Your task to perform on an android device: Show the shopping cart on amazon.com. Search for razer thresher on amazon.com, select the first entry, and add it to the cart. Image 0: 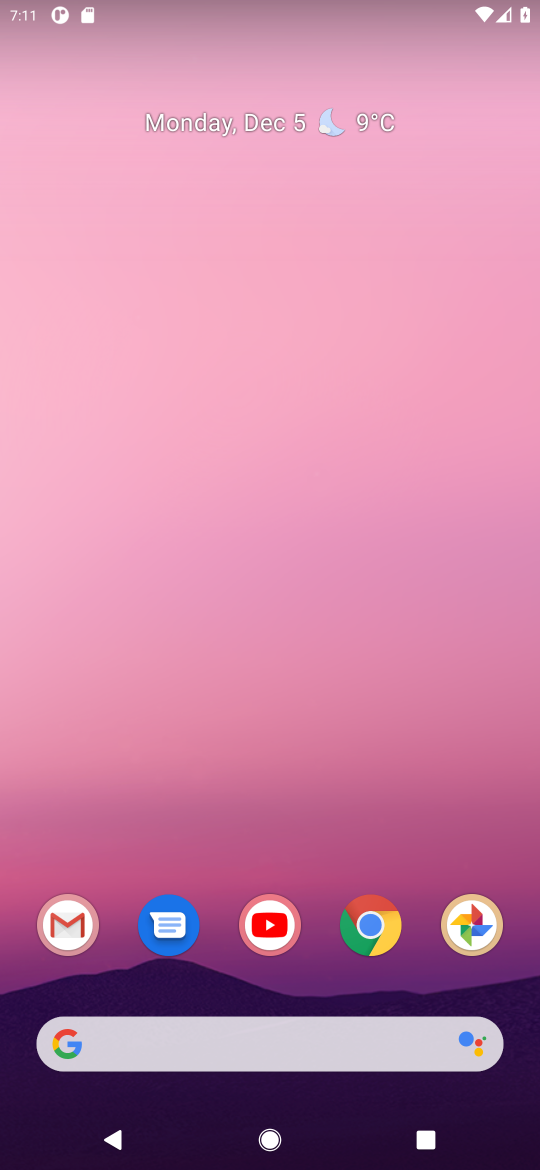
Step 0: click (366, 933)
Your task to perform on an android device: Show the shopping cart on amazon.com. Search for razer thresher on amazon.com, select the first entry, and add it to the cart. Image 1: 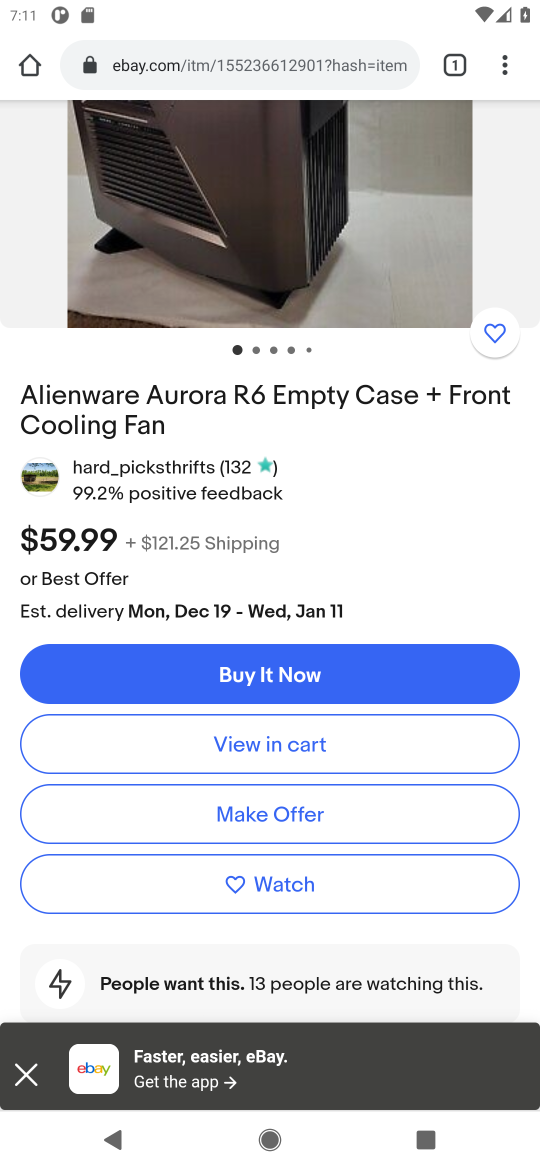
Step 1: click (229, 68)
Your task to perform on an android device: Show the shopping cart on amazon.com. Search for razer thresher on amazon.com, select the first entry, and add it to the cart. Image 2: 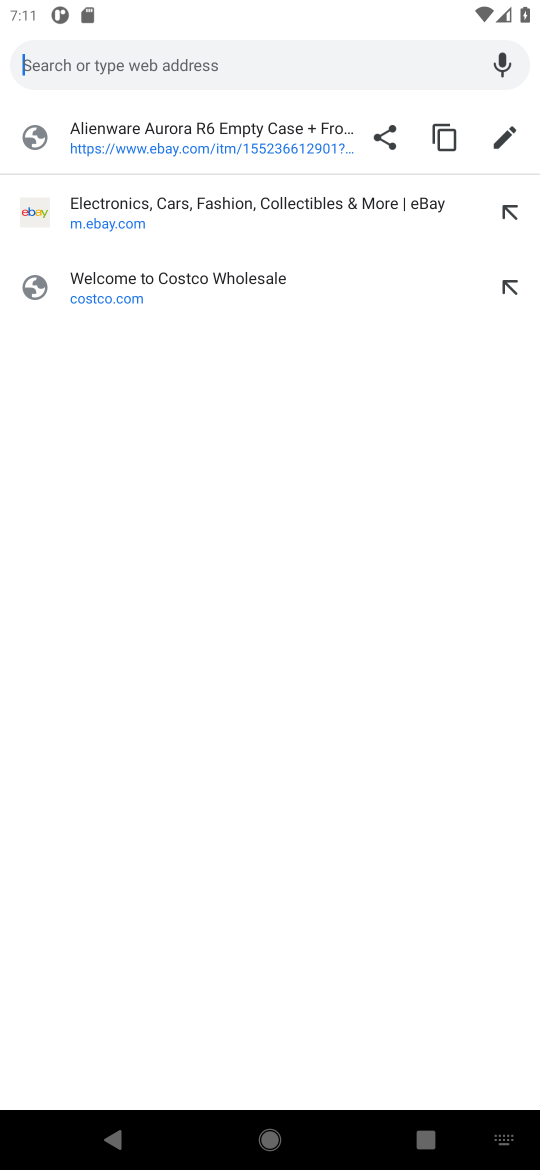
Step 2: type "amazon.com"
Your task to perform on an android device: Show the shopping cart on amazon.com. Search for razer thresher on amazon.com, select the first entry, and add it to the cart. Image 3: 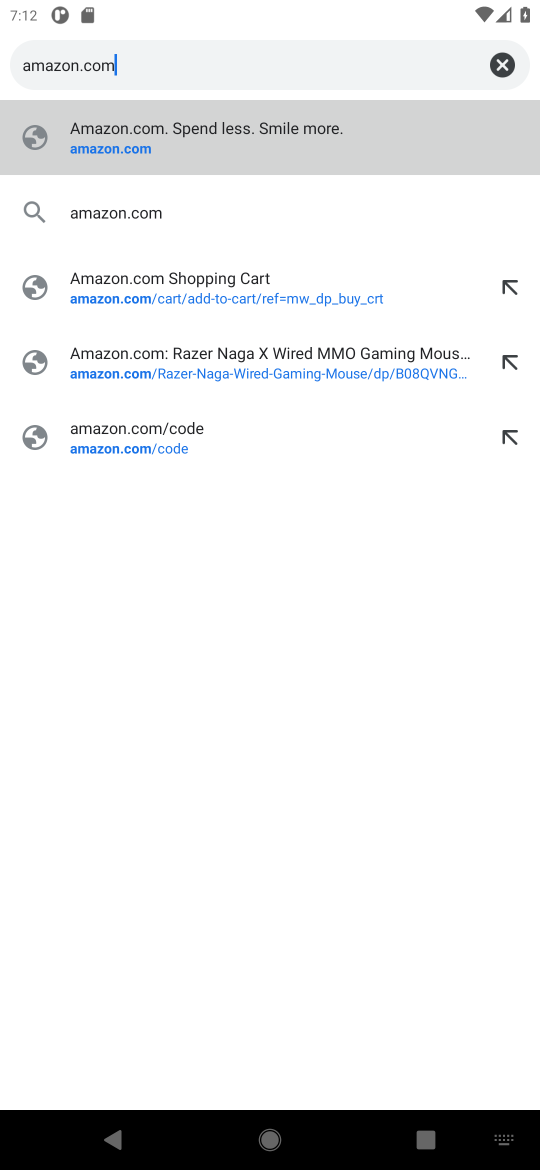
Step 3: click (74, 152)
Your task to perform on an android device: Show the shopping cart on amazon.com. Search for razer thresher on amazon.com, select the first entry, and add it to the cart. Image 4: 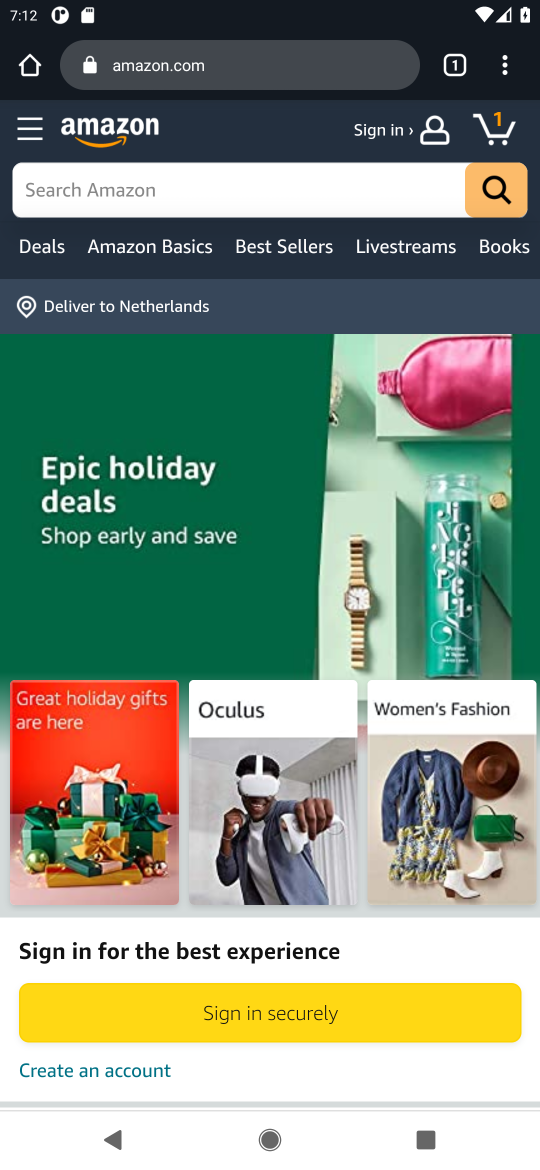
Step 4: click (496, 133)
Your task to perform on an android device: Show the shopping cart on amazon.com. Search for razer thresher on amazon.com, select the first entry, and add it to the cart. Image 5: 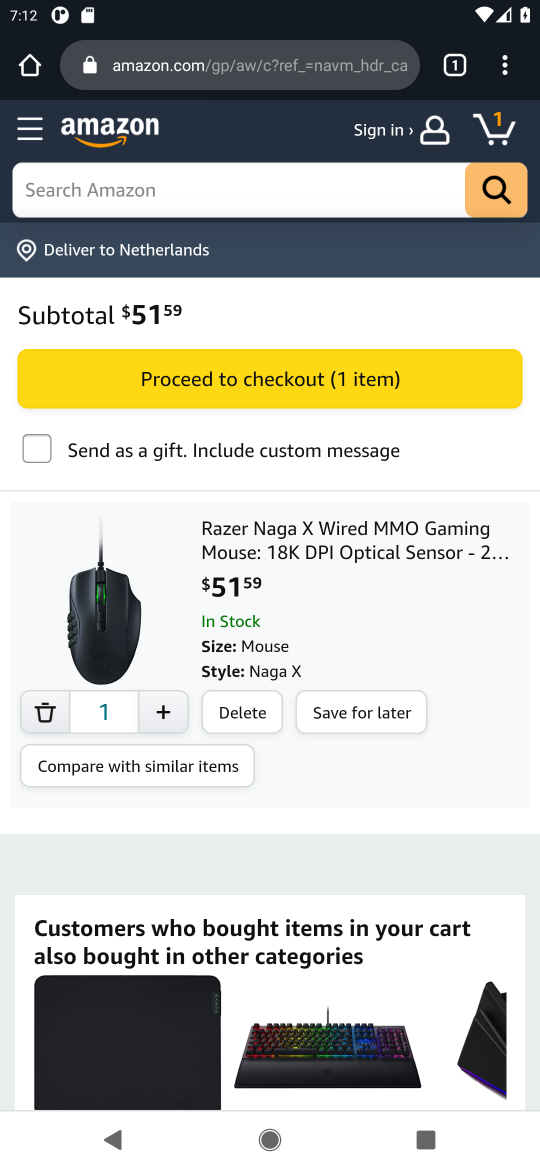
Step 5: click (73, 185)
Your task to perform on an android device: Show the shopping cart on amazon.com. Search for razer thresher on amazon.com, select the first entry, and add it to the cart. Image 6: 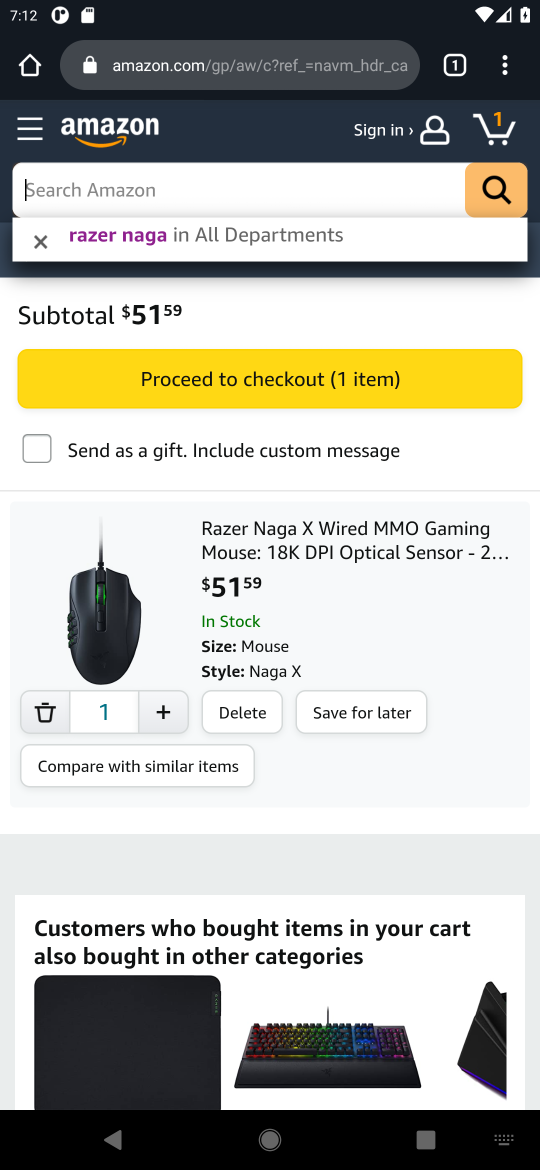
Step 6: type "razer thresher"
Your task to perform on an android device: Show the shopping cart on amazon.com. Search for razer thresher on amazon.com, select the first entry, and add it to the cart. Image 7: 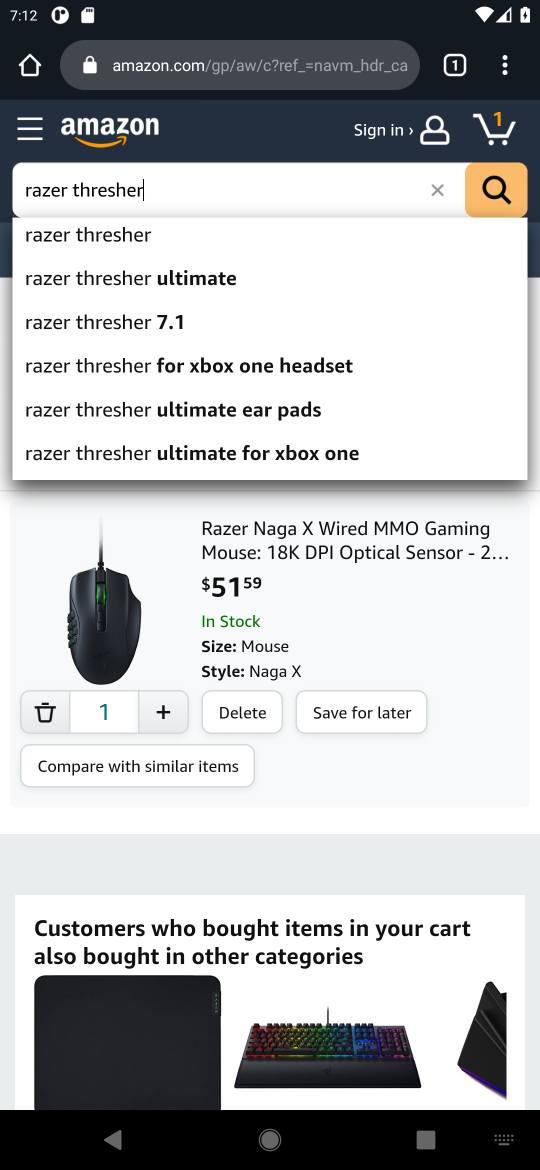
Step 7: click (69, 242)
Your task to perform on an android device: Show the shopping cart on amazon.com. Search for razer thresher on amazon.com, select the first entry, and add it to the cart. Image 8: 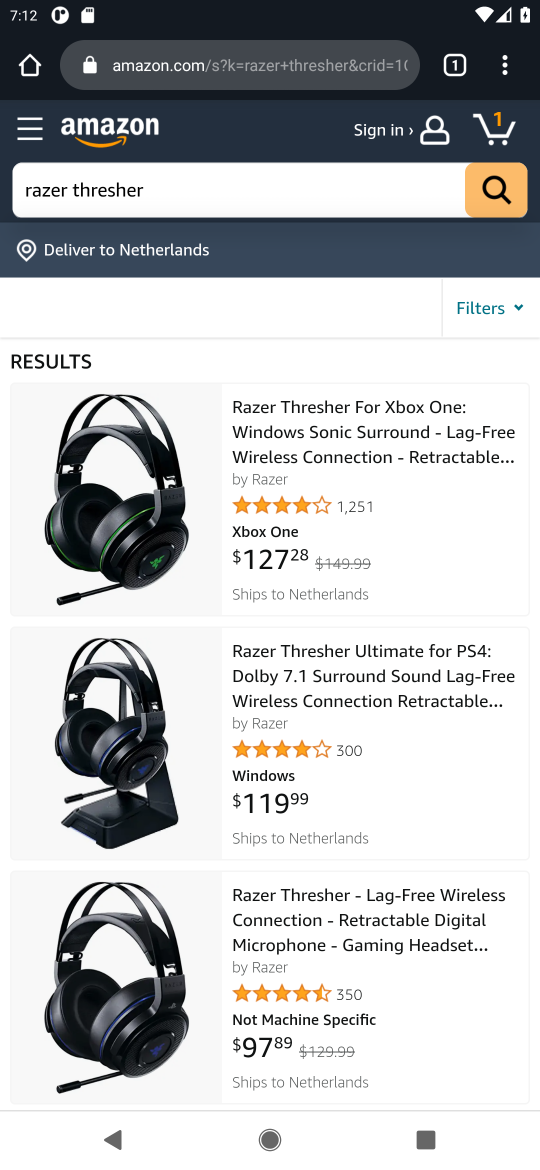
Step 8: click (317, 457)
Your task to perform on an android device: Show the shopping cart on amazon.com. Search for razer thresher on amazon.com, select the first entry, and add it to the cart. Image 9: 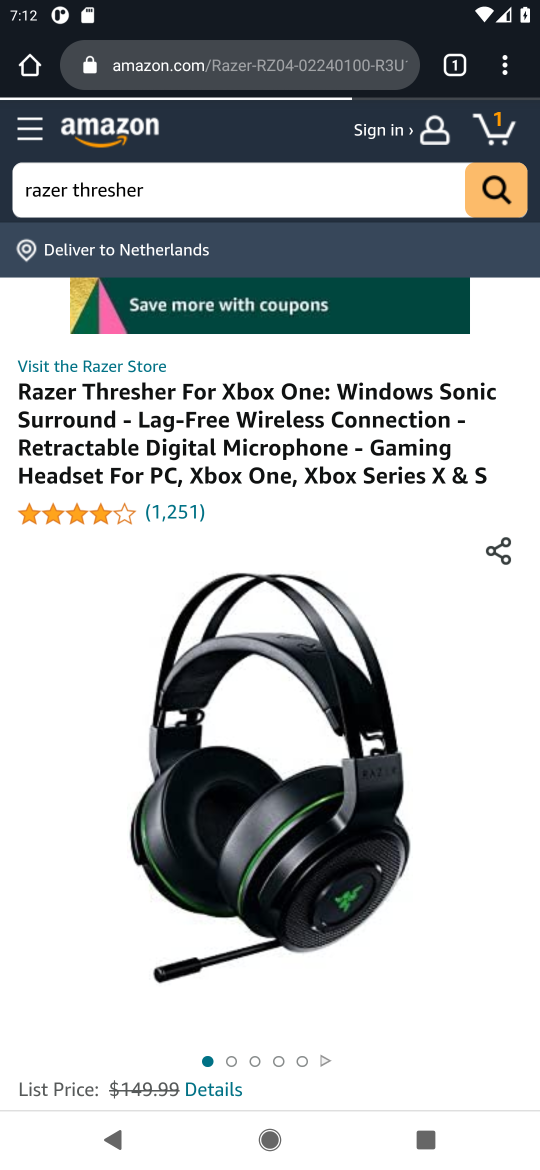
Step 9: drag from (250, 826) to (280, 448)
Your task to perform on an android device: Show the shopping cart on amazon.com. Search for razer thresher on amazon.com, select the first entry, and add it to the cart. Image 10: 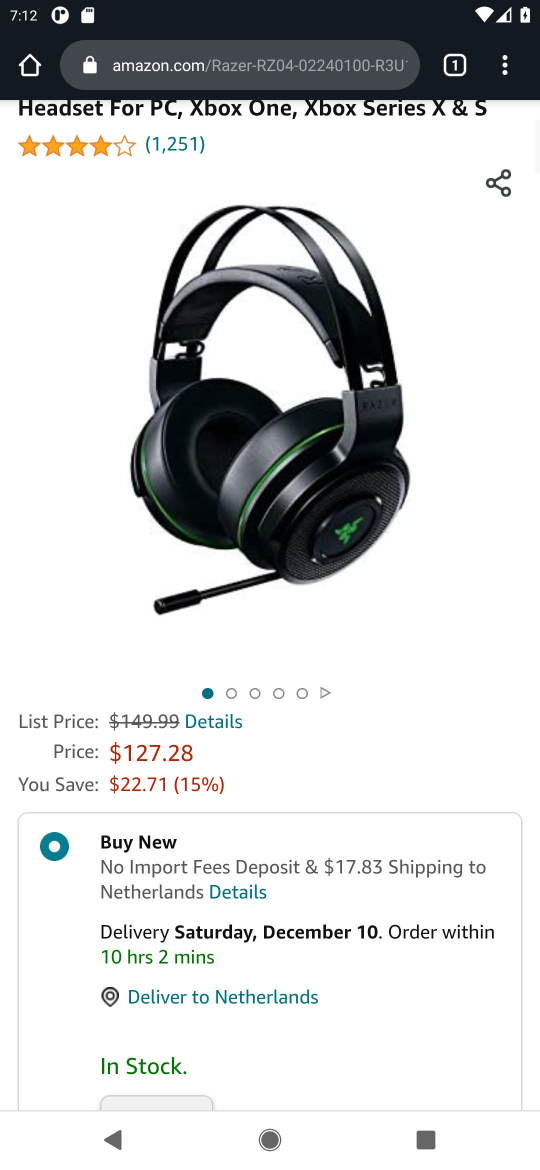
Step 10: drag from (264, 802) to (270, 299)
Your task to perform on an android device: Show the shopping cart on amazon.com. Search for razer thresher on amazon.com, select the first entry, and add it to the cart. Image 11: 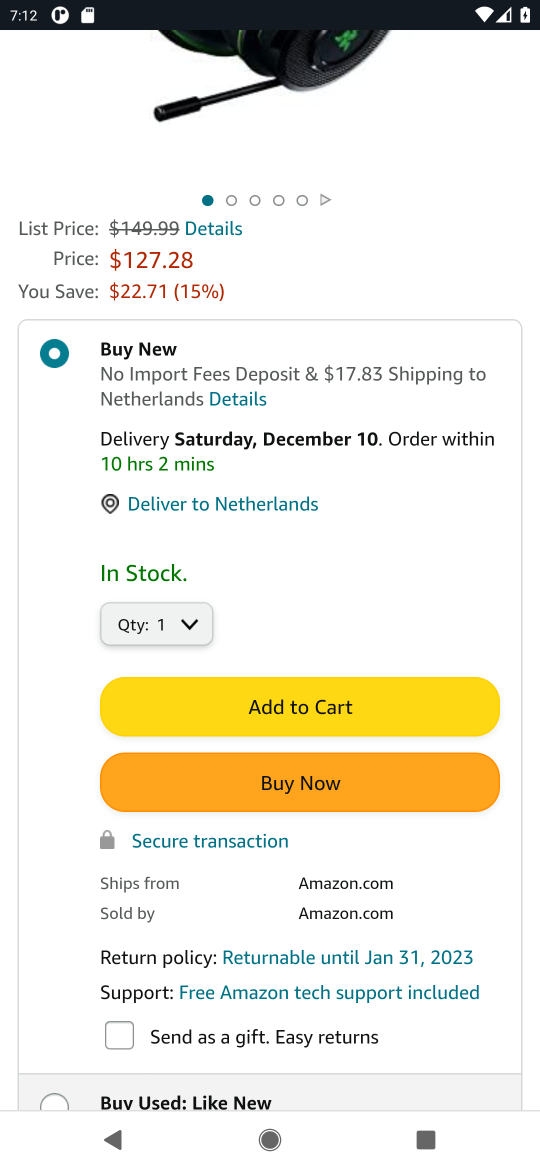
Step 11: click (265, 699)
Your task to perform on an android device: Show the shopping cart on amazon.com. Search for razer thresher on amazon.com, select the first entry, and add it to the cart. Image 12: 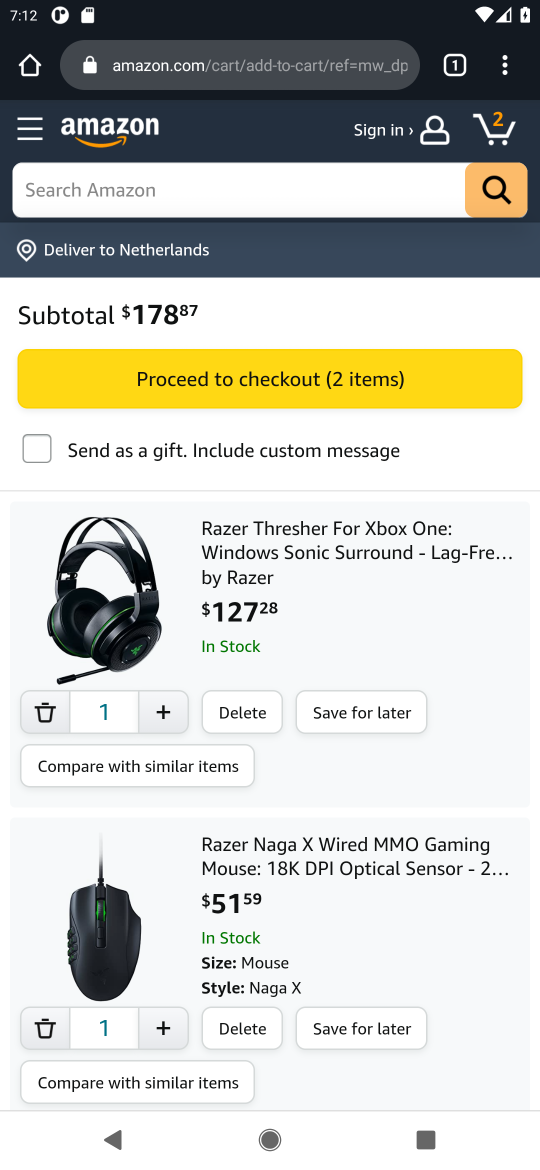
Step 12: task complete